Your task to perform on an android device: Open the phone app and click the voicemail tab. Image 0: 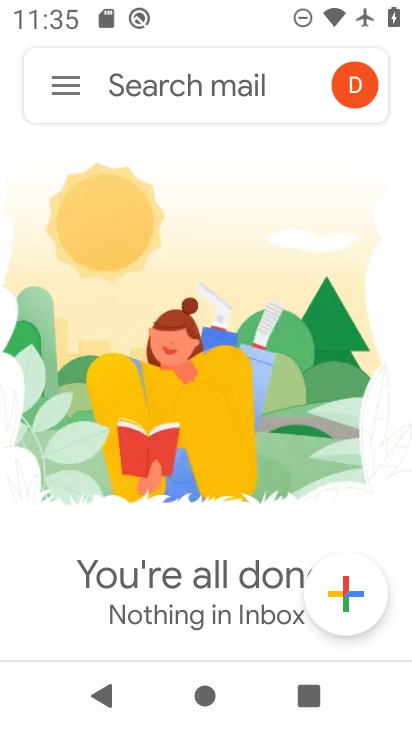
Step 0: press back button
Your task to perform on an android device: Open the phone app and click the voicemail tab. Image 1: 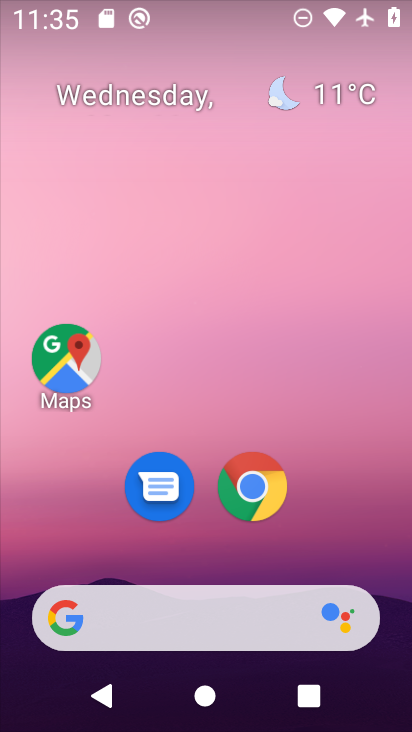
Step 1: drag from (354, 481) to (308, 40)
Your task to perform on an android device: Open the phone app and click the voicemail tab. Image 2: 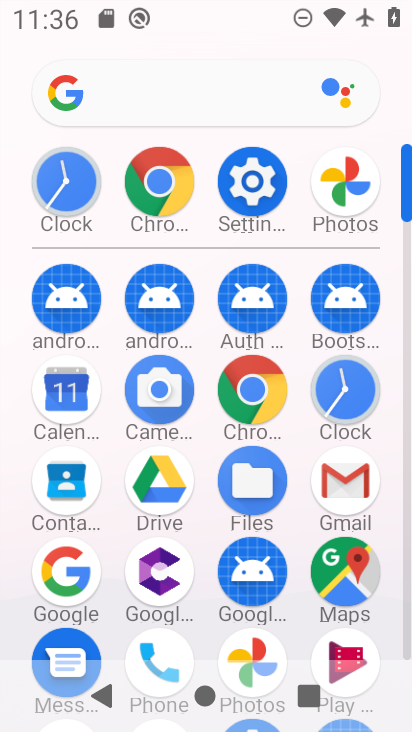
Step 2: drag from (18, 544) to (15, 300)
Your task to perform on an android device: Open the phone app and click the voicemail tab. Image 3: 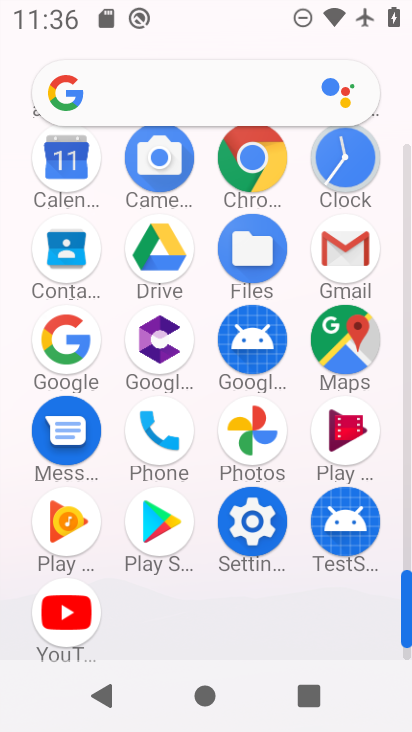
Step 3: click (152, 425)
Your task to perform on an android device: Open the phone app and click the voicemail tab. Image 4: 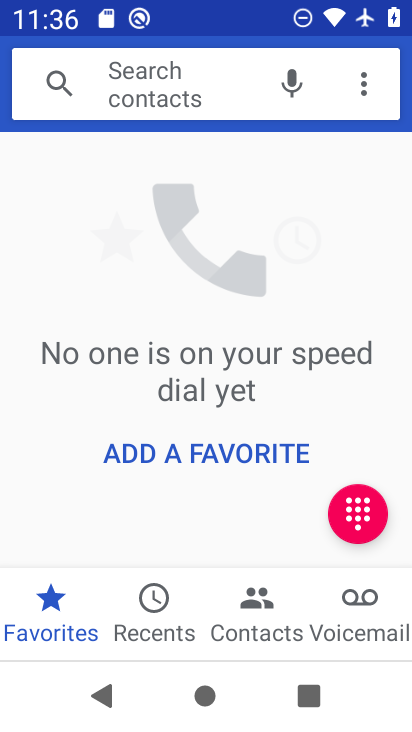
Step 4: click (368, 602)
Your task to perform on an android device: Open the phone app and click the voicemail tab. Image 5: 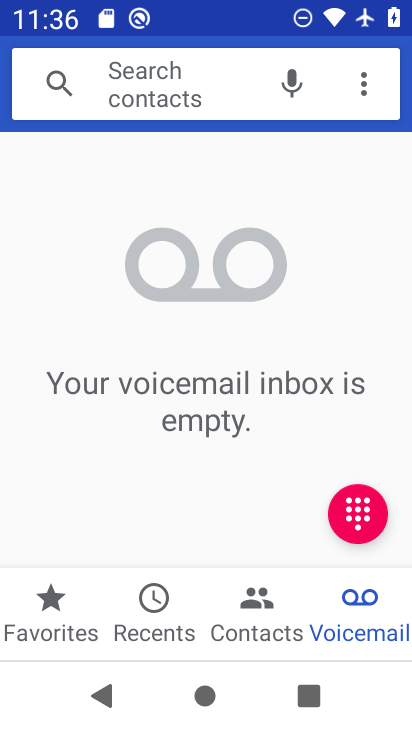
Step 5: task complete